Your task to perform on an android device: Open accessibility settings Image 0: 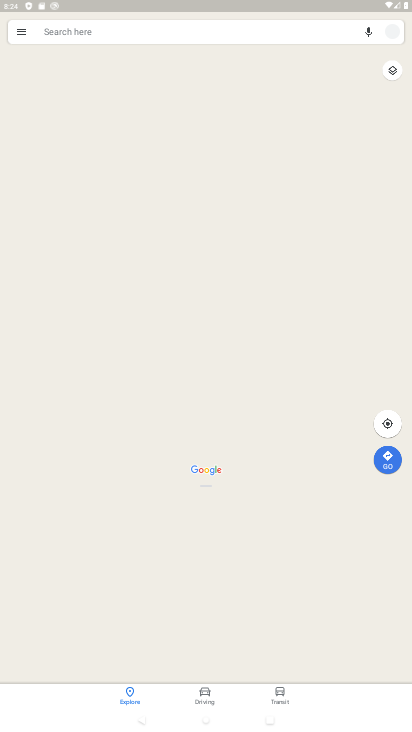
Step 0: press home button
Your task to perform on an android device: Open accessibility settings Image 1: 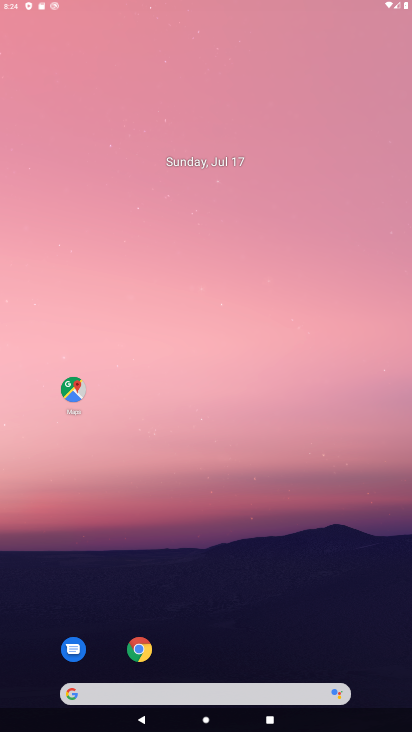
Step 1: drag from (243, 642) to (225, 221)
Your task to perform on an android device: Open accessibility settings Image 2: 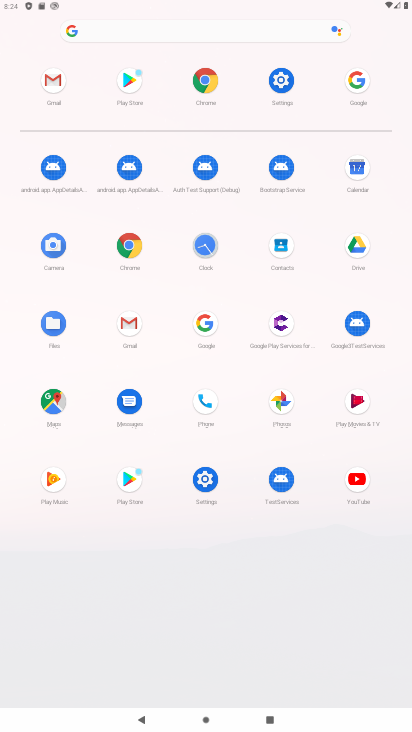
Step 2: click (279, 79)
Your task to perform on an android device: Open accessibility settings Image 3: 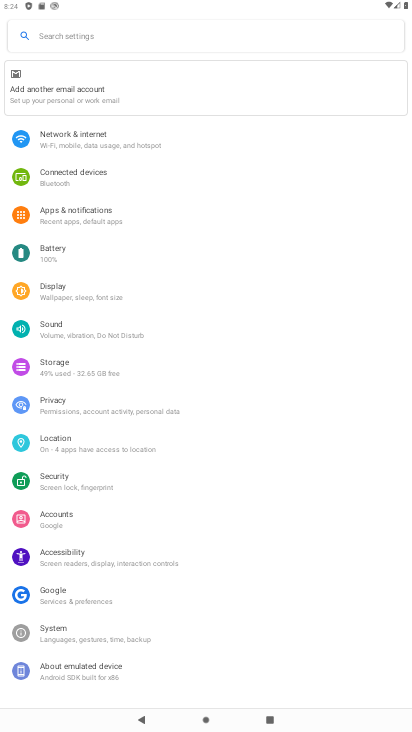
Step 3: click (84, 557)
Your task to perform on an android device: Open accessibility settings Image 4: 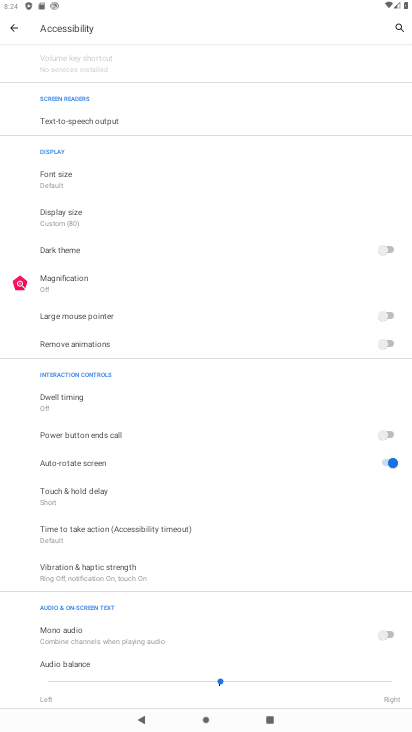
Step 4: task complete